Your task to perform on an android device: Open display settings Image 0: 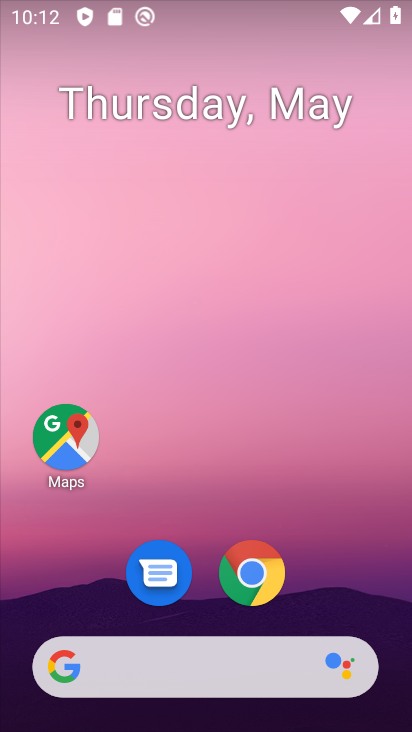
Step 0: drag from (346, 528) to (361, 142)
Your task to perform on an android device: Open display settings Image 1: 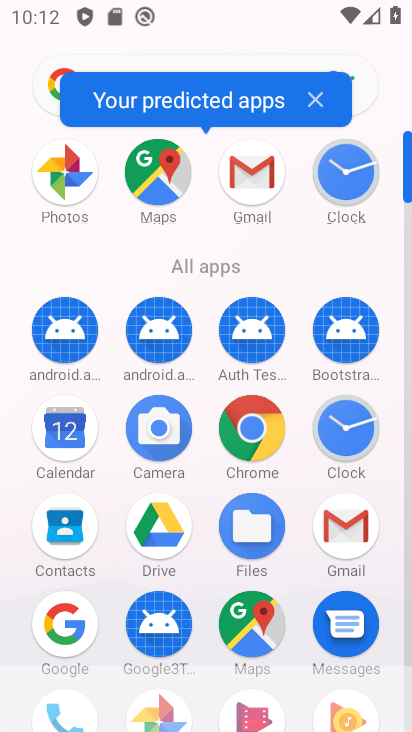
Step 1: drag from (192, 654) to (227, 367)
Your task to perform on an android device: Open display settings Image 2: 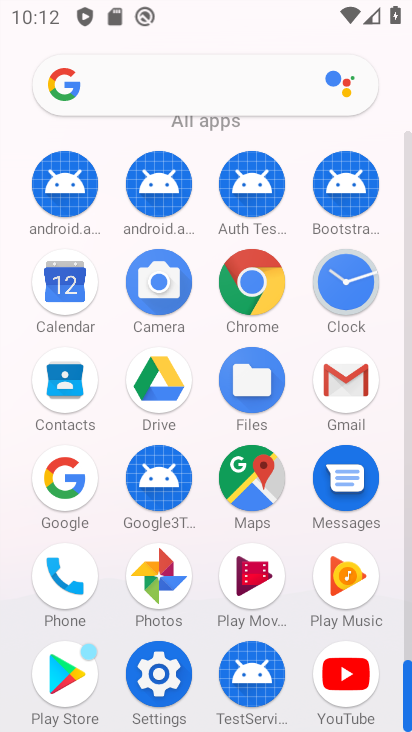
Step 2: click (172, 660)
Your task to perform on an android device: Open display settings Image 3: 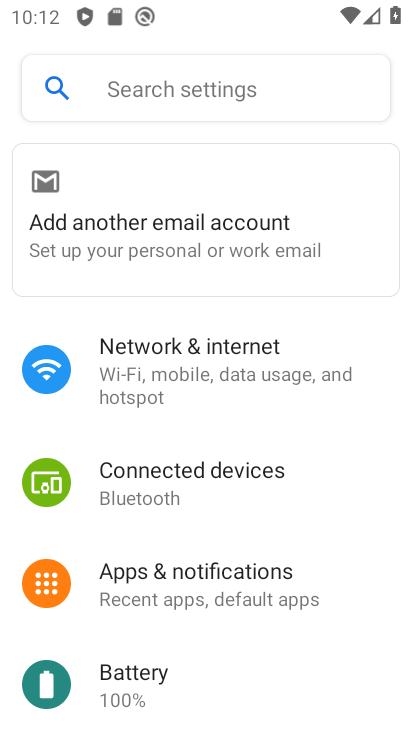
Step 3: drag from (311, 653) to (371, 307)
Your task to perform on an android device: Open display settings Image 4: 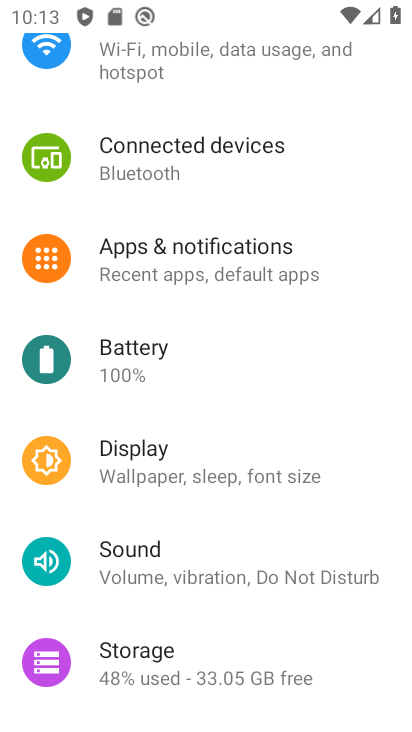
Step 4: click (221, 446)
Your task to perform on an android device: Open display settings Image 5: 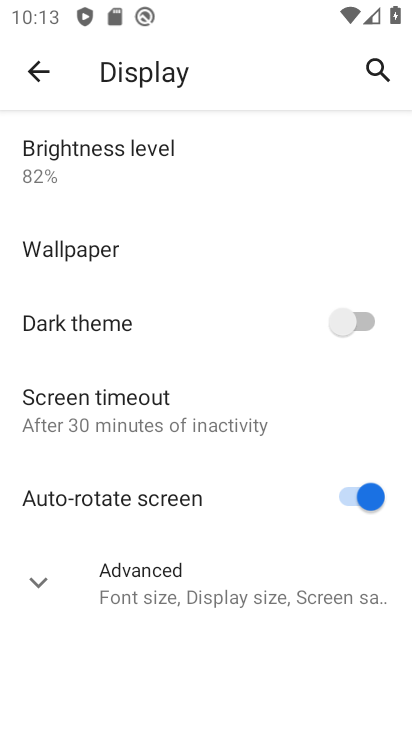
Step 5: click (203, 594)
Your task to perform on an android device: Open display settings Image 6: 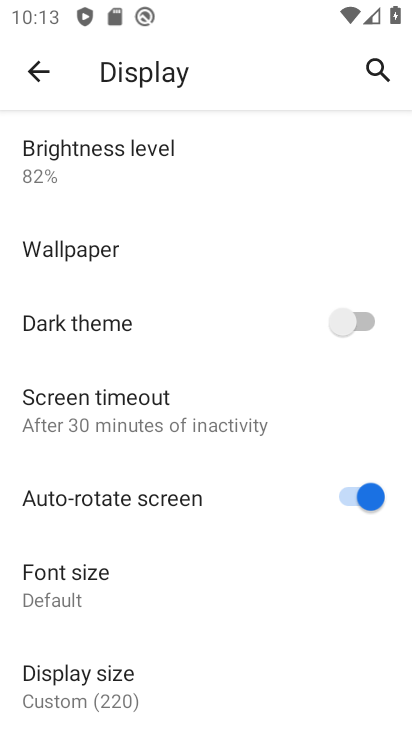
Step 6: task complete